Your task to perform on an android device: turn off location history Image 0: 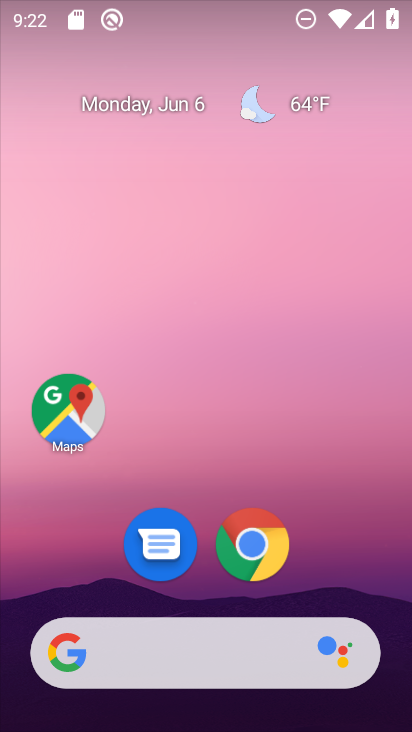
Step 0: click (70, 414)
Your task to perform on an android device: turn off location history Image 1: 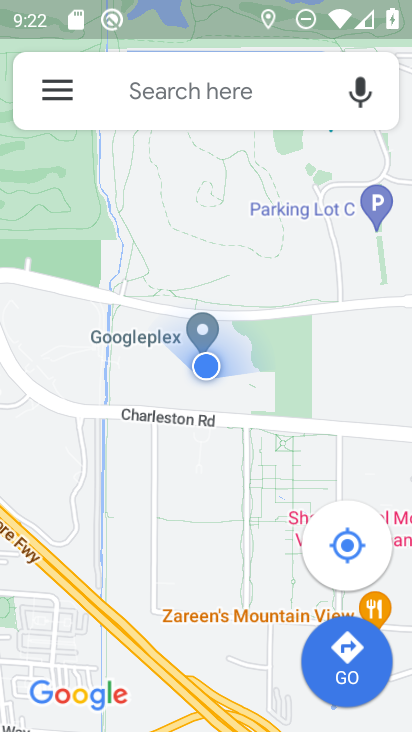
Step 1: click (59, 83)
Your task to perform on an android device: turn off location history Image 2: 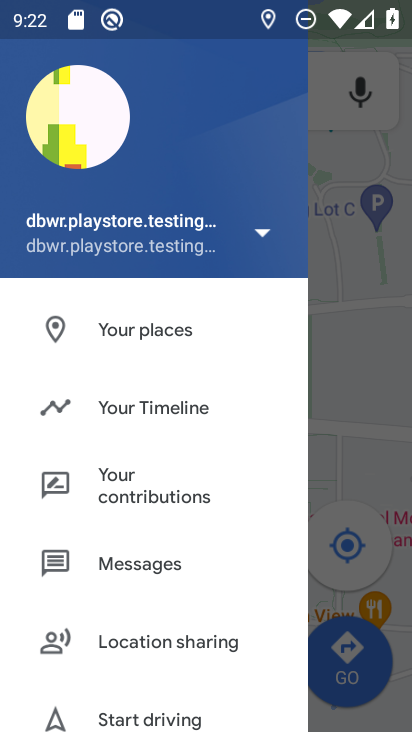
Step 2: drag from (239, 552) to (269, 181)
Your task to perform on an android device: turn off location history Image 3: 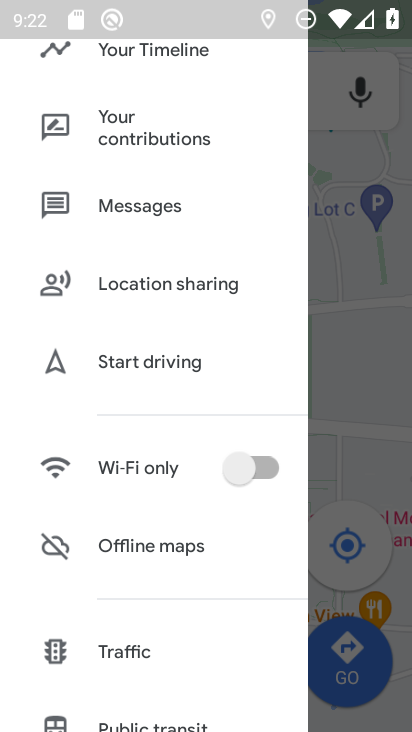
Step 3: drag from (214, 660) to (220, 265)
Your task to perform on an android device: turn off location history Image 4: 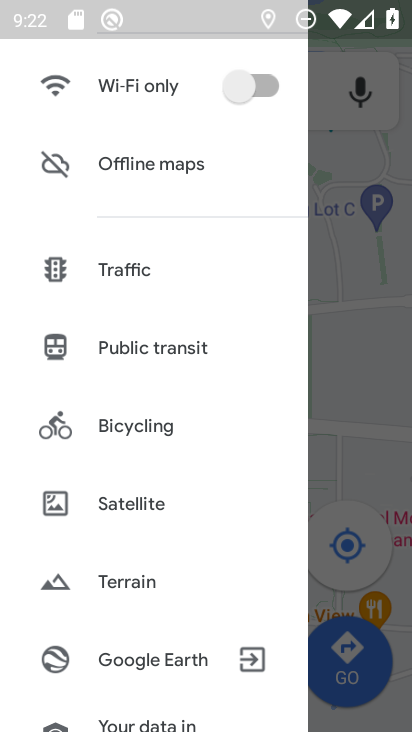
Step 4: drag from (184, 631) to (194, 286)
Your task to perform on an android device: turn off location history Image 5: 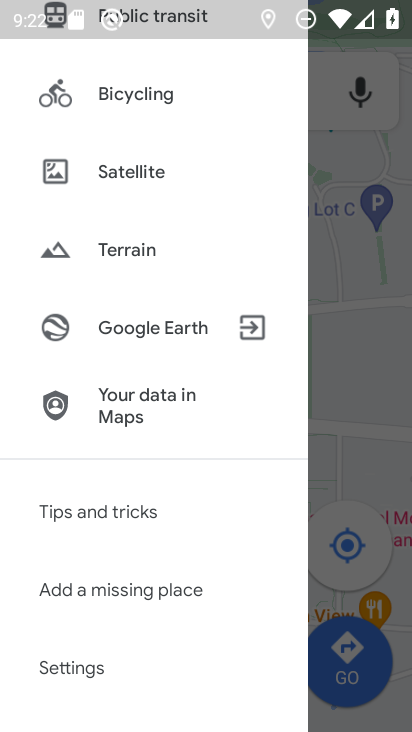
Step 5: drag from (148, 659) to (195, 328)
Your task to perform on an android device: turn off location history Image 6: 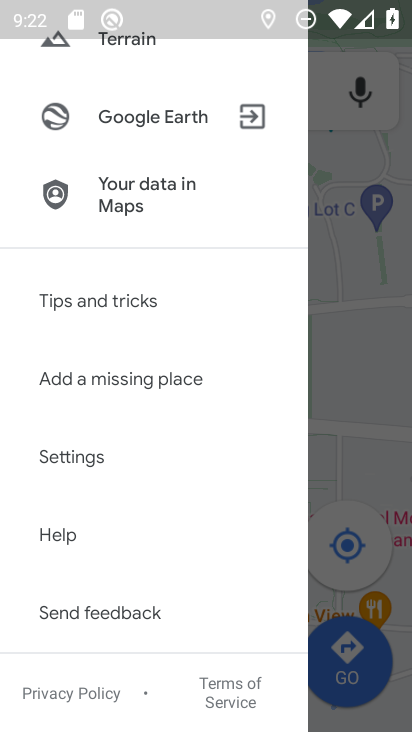
Step 6: click (71, 451)
Your task to perform on an android device: turn off location history Image 7: 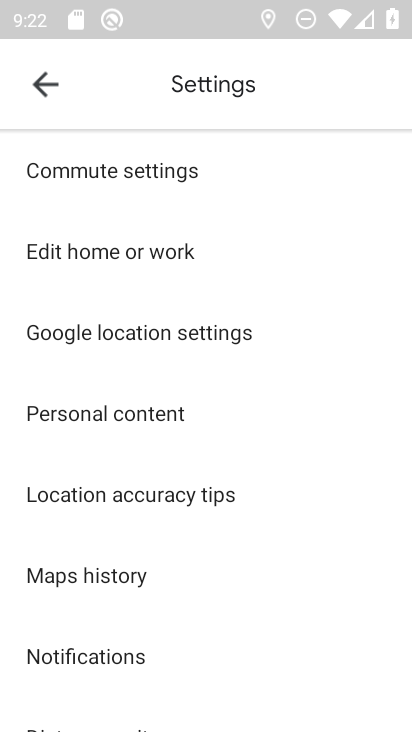
Step 7: click (84, 418)
Your task to perform on an android device: turn off location history Image 8: 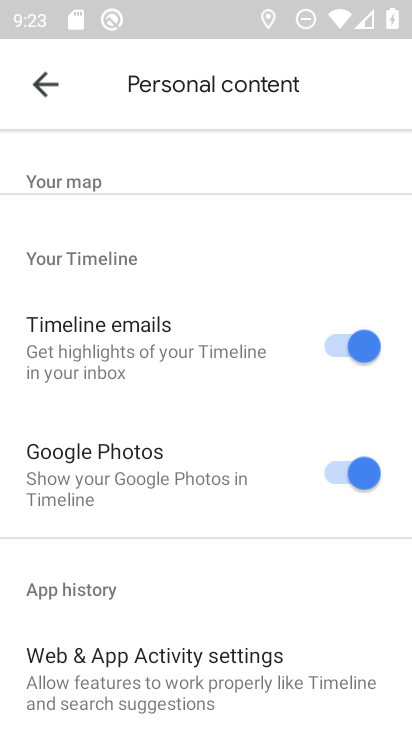
Step 8: task complete